Your task to perform on an android device: Open notification settings Image 0: 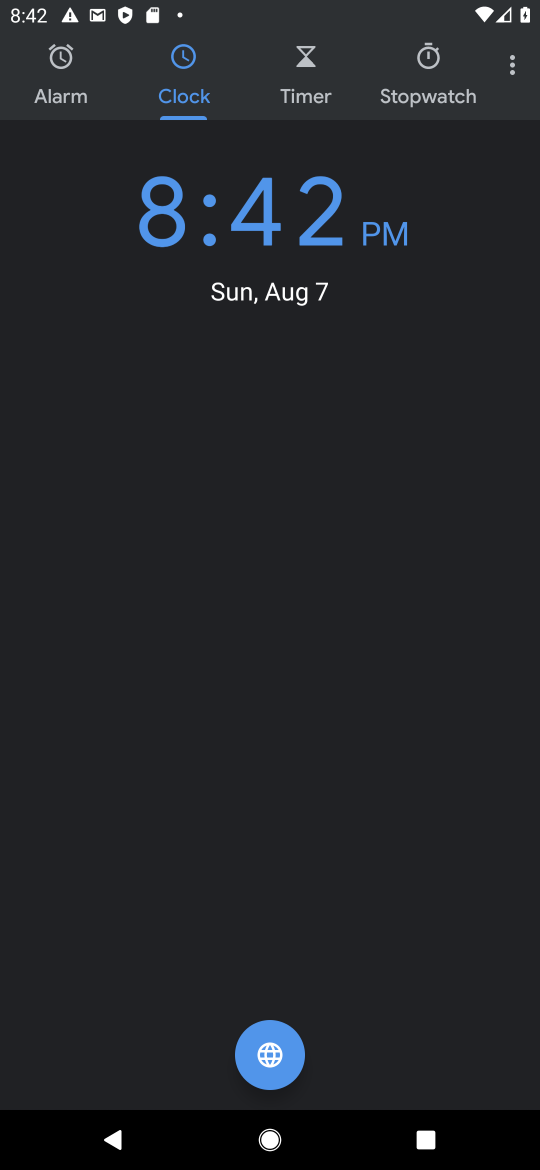
Step 0: press home button
Your task to perform on an android device: Open notification settings Image 1: 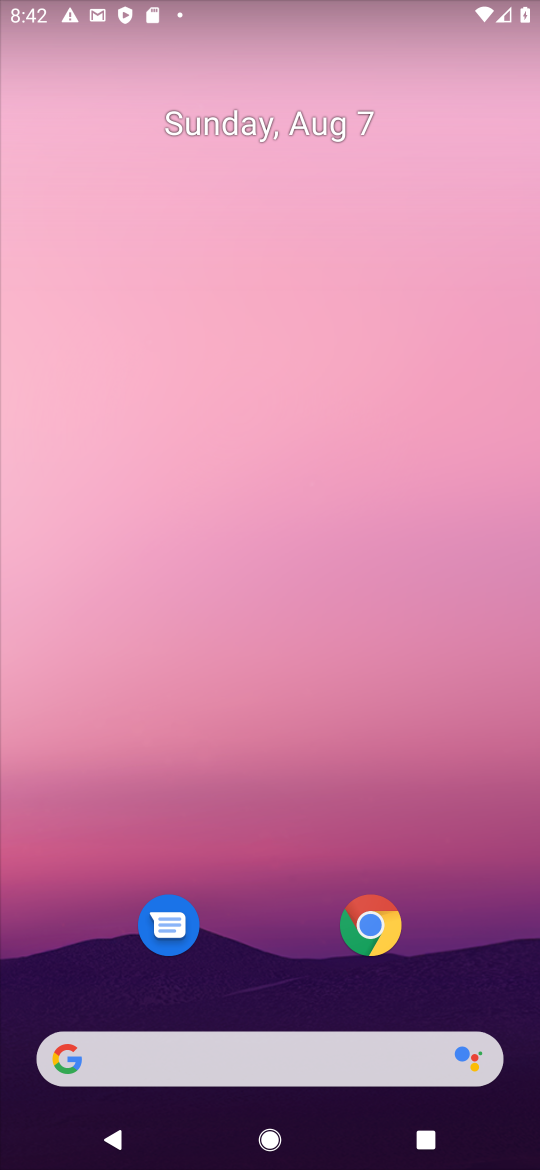
Step 1: drag from (261, 369) to (286, 233)
Your task to perform on an android device: Open notification settings Image 2: 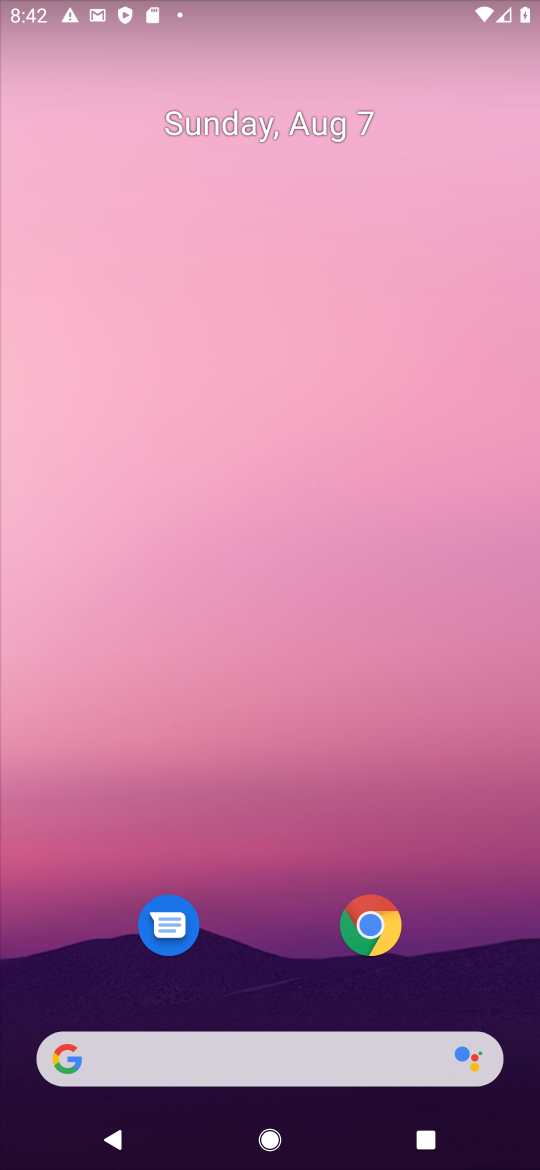
Step 2: drag from (285, 977) to (370, 161)
Your task to perform on an android device: Open notification settings Image 3: 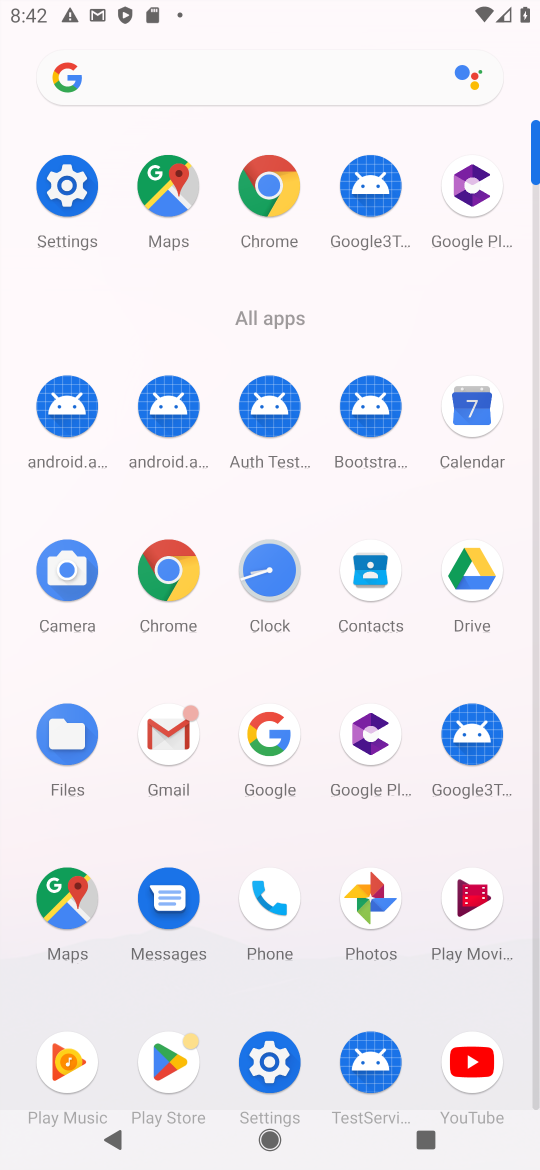
Step 3: click (49, 242)
Your task to perform on an android device: Open notification settings Image 4: 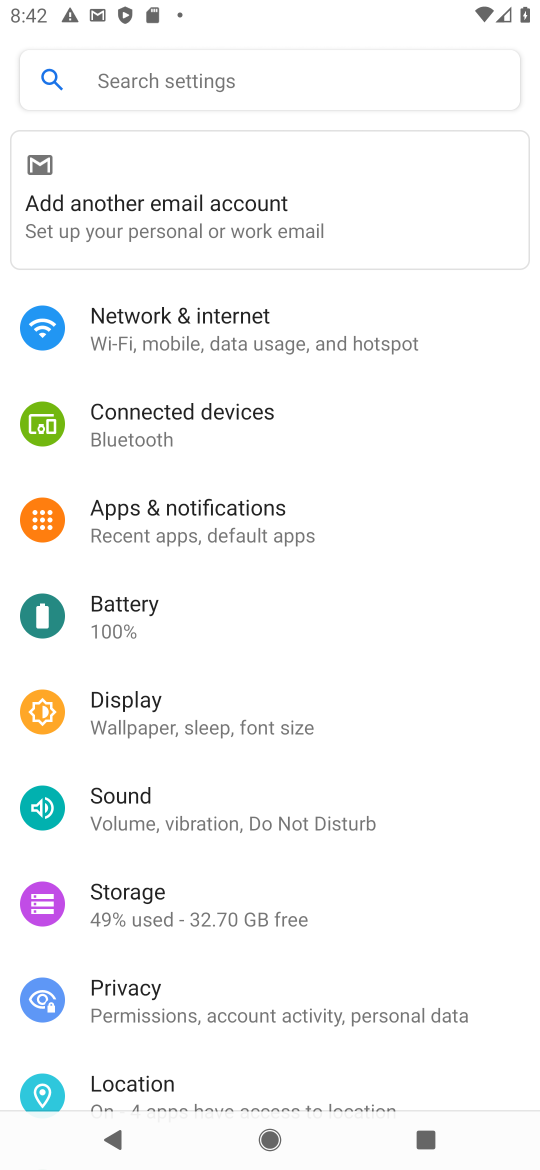
Step 4: click (226, 528)
Your task to perform on an android device: Open notification settings Image 5: 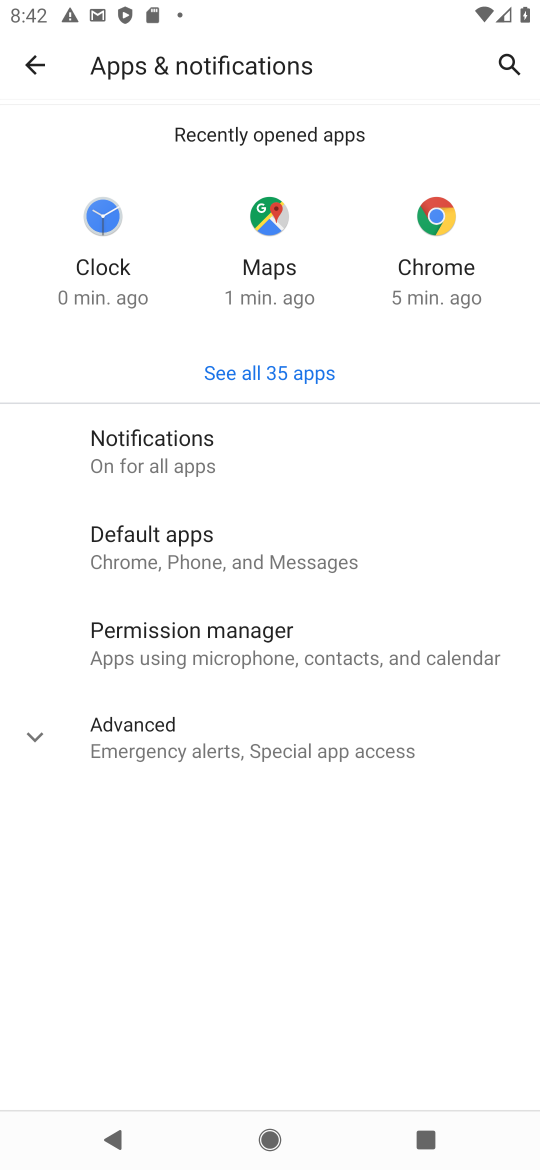
Step 5: click (146, 461)
Your task to perform on an android device: Open notification settings Image 6: 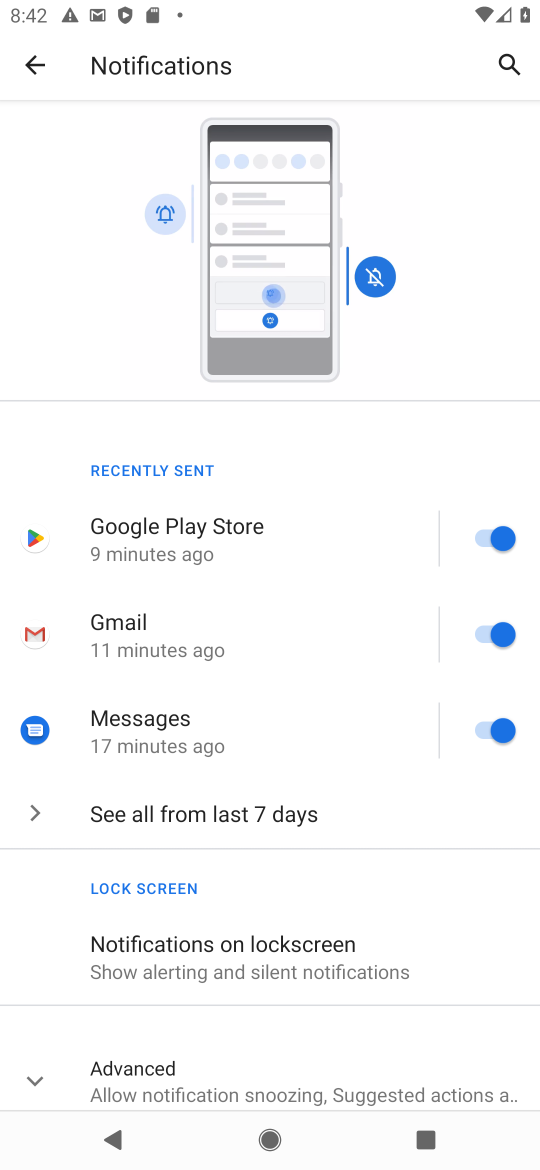
Step 6: task complete